Your task to perform on an android device: turn off sleep mode Image 0: 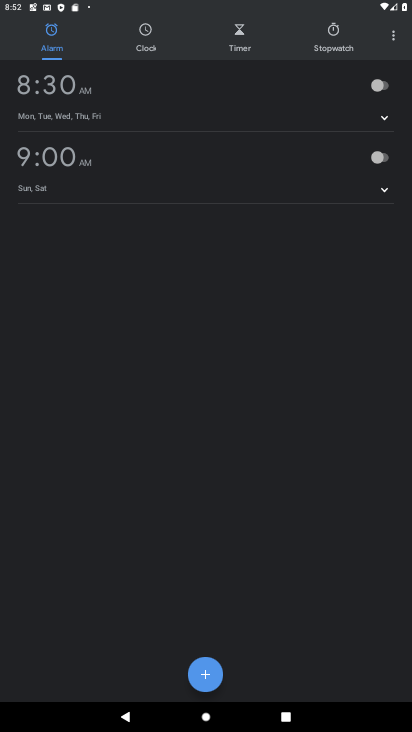
Step 0: press home button
Your task to perform on an android device: turn off sleep mode Image 1: 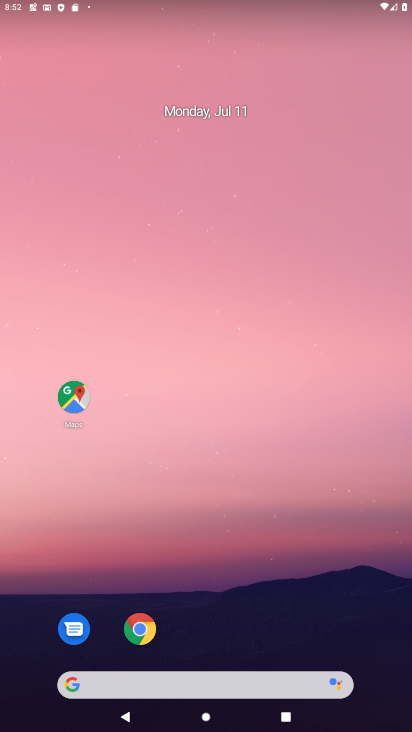
Step 1: drag from (220, 606) to (207, 3)
Your task to perform on an android device: turn off sleep mode Image 2: 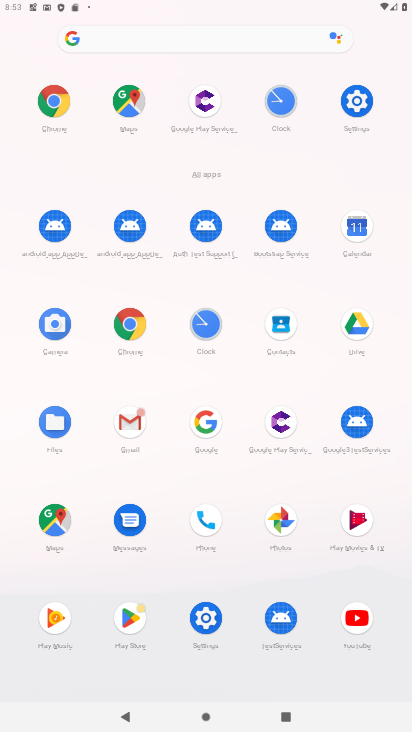
Step 2: drag from (223, 13) to (204, 559)
Your task to perform on an android device: turn off sleep mode Image 3: 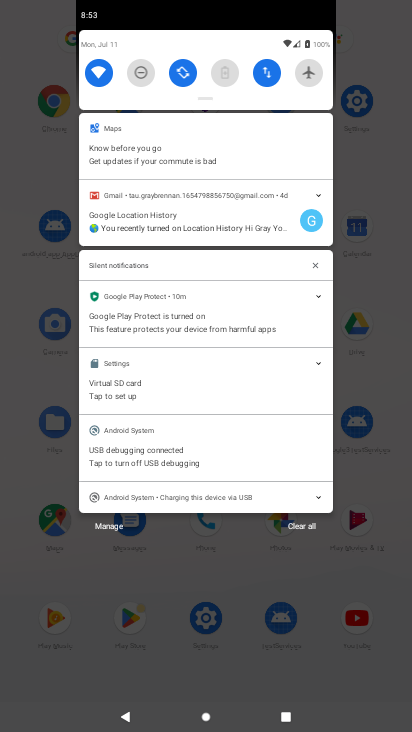
Step 3: drag from (214, 95) to (210, 682)
Your task to perform on an android device: turn off sleep mode Image 4: 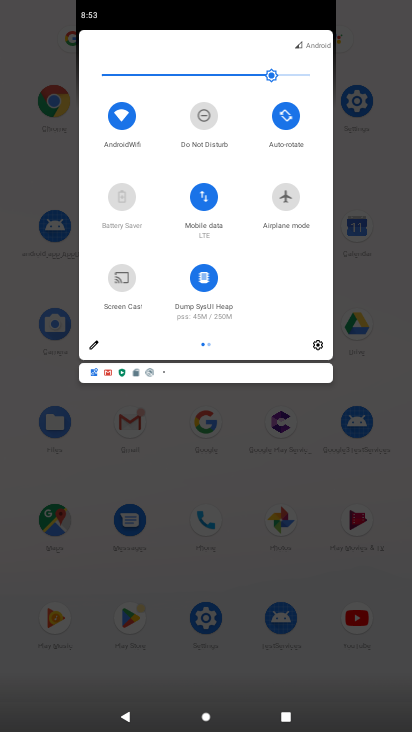
Step 4: click (92, 344)
Your task to perform on an android device: turn off sleep mode Image 5: 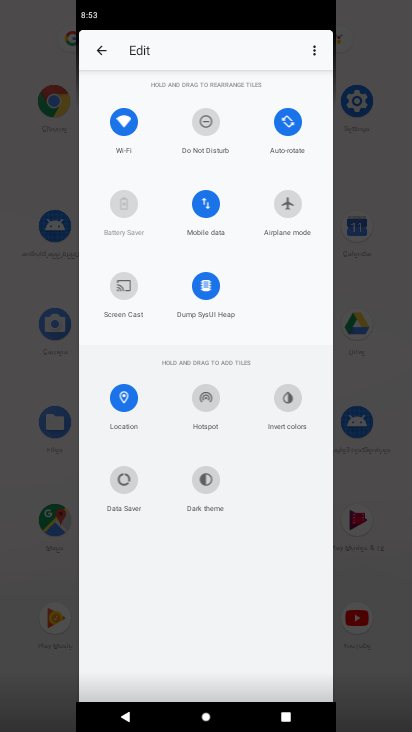
Step 5: task complete